Your task to perform on an android device: turn on wifi Image 0: 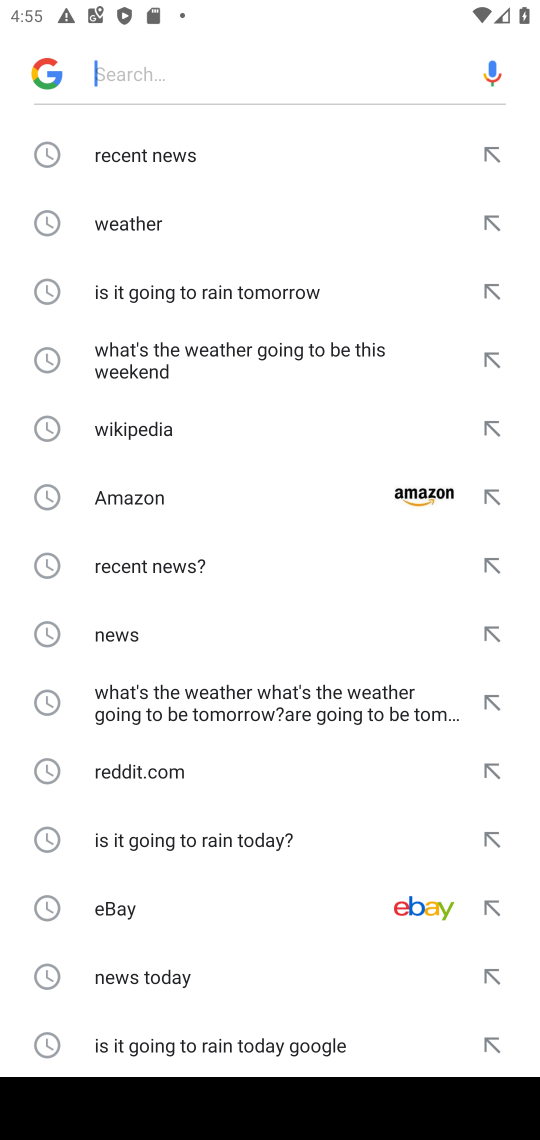
Step 0: press home button
Your task to perform on an android device: turn on wifi Image 1: 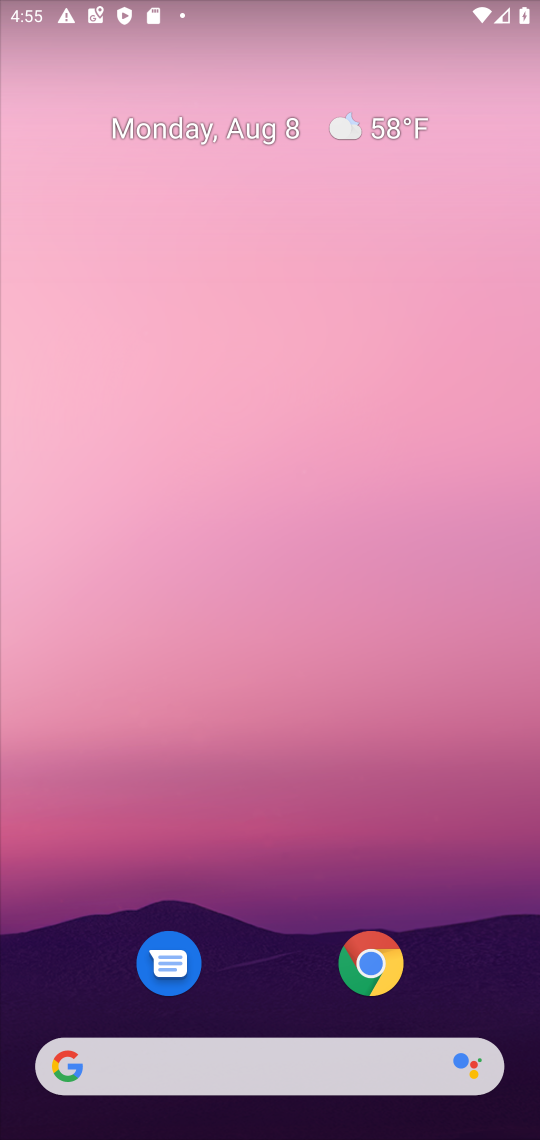
Step 1: drag from (260, 869) to (538, 366)
Your task to perform on an android device: turn on wifi Image 2: 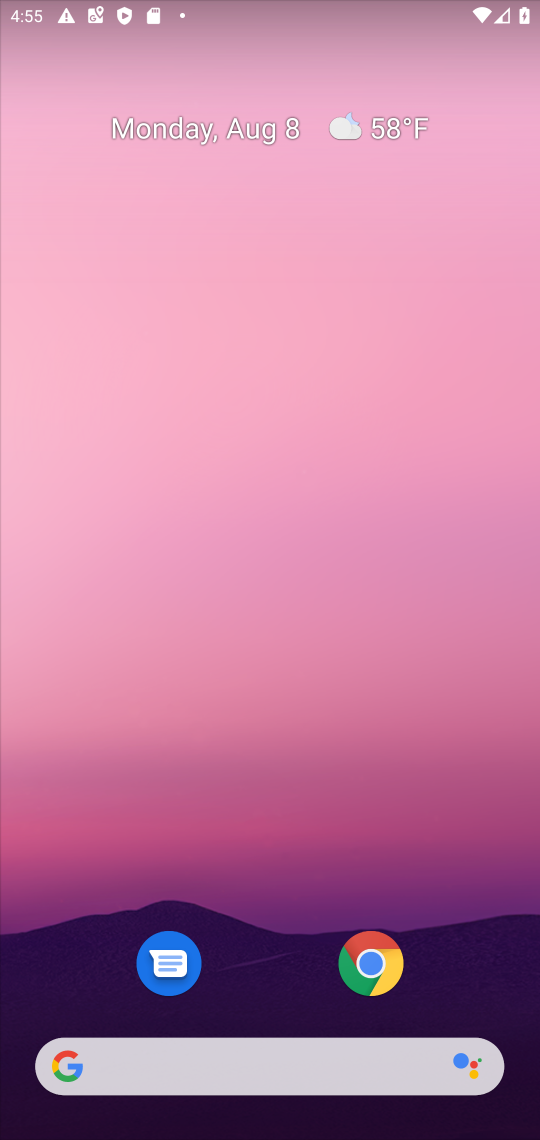
Step 2: drag from (240, 937) to (474, 50)
Your task to perform on an android device: turn on wifi Image 3: 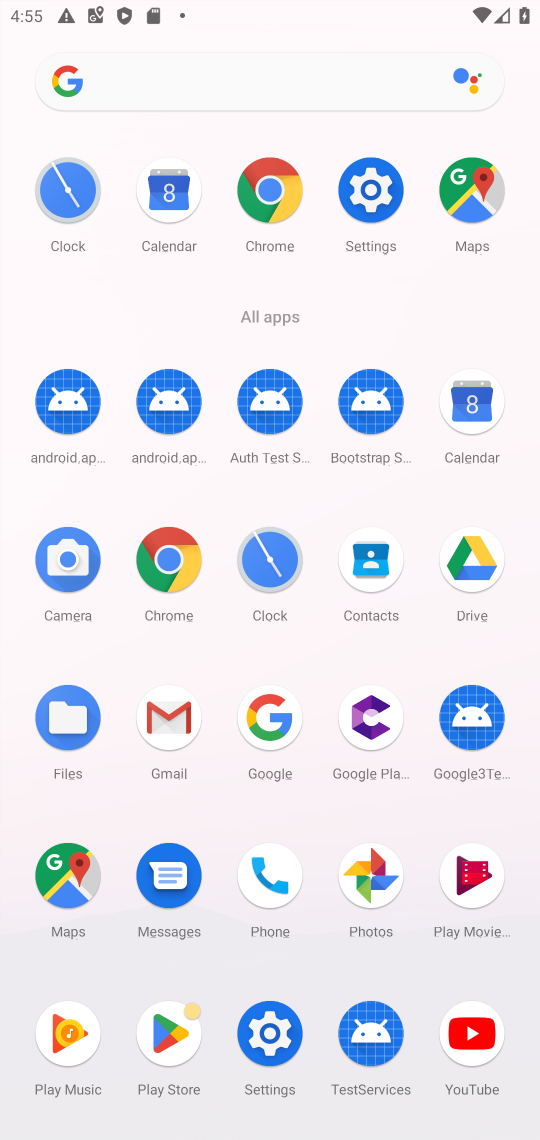
Step 3: click (356, 206)
Your task to perform on an android device: turn on wifi Image 4: 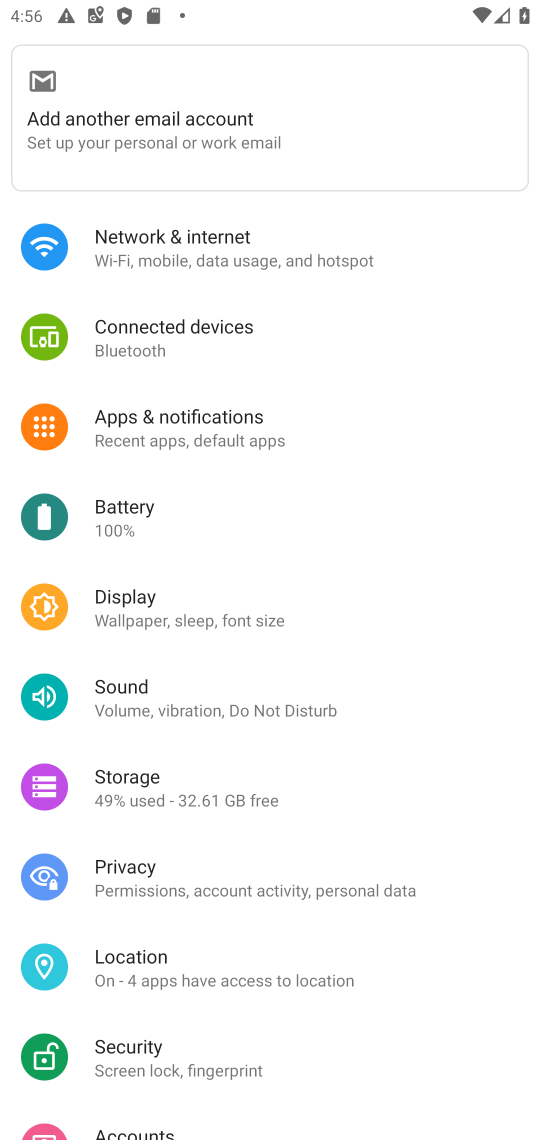
Step 4: click (132, 275)
Your task to perform on an android device: turn on wifi Image 5: 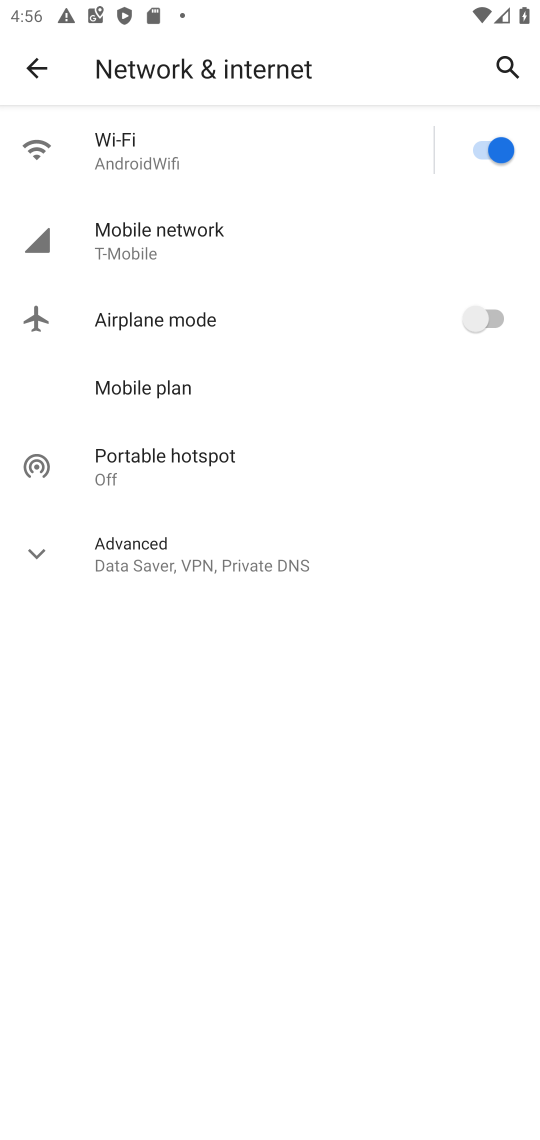
Step 5: task complete